Your task to perform on an android device: What's the weather like in Delhi? Image 0: 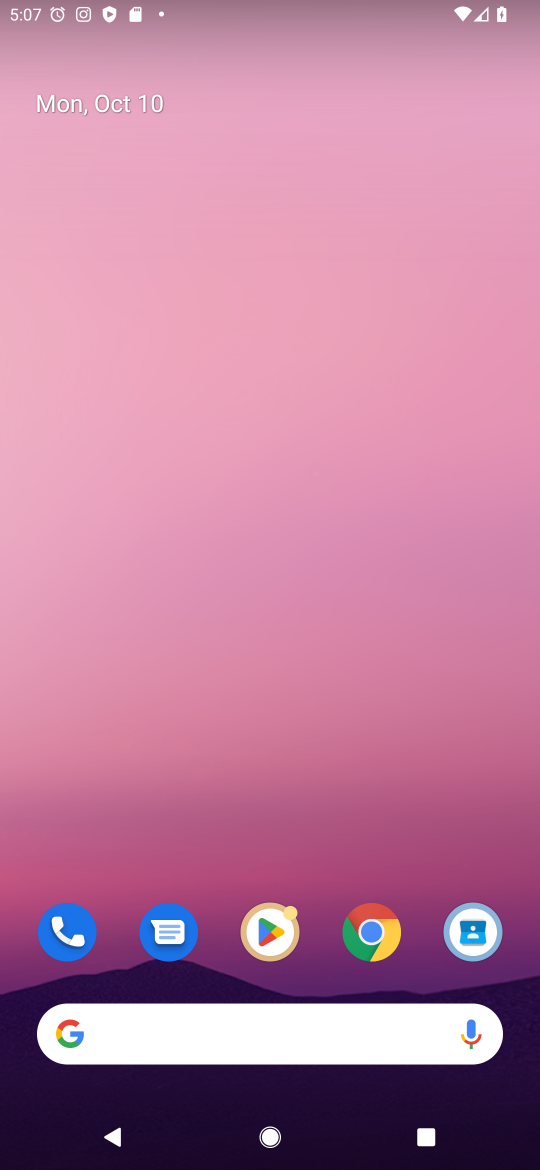
Step 0: press home button
Your task to perform on an android device: What's the weather like in Delhi? Image 1: 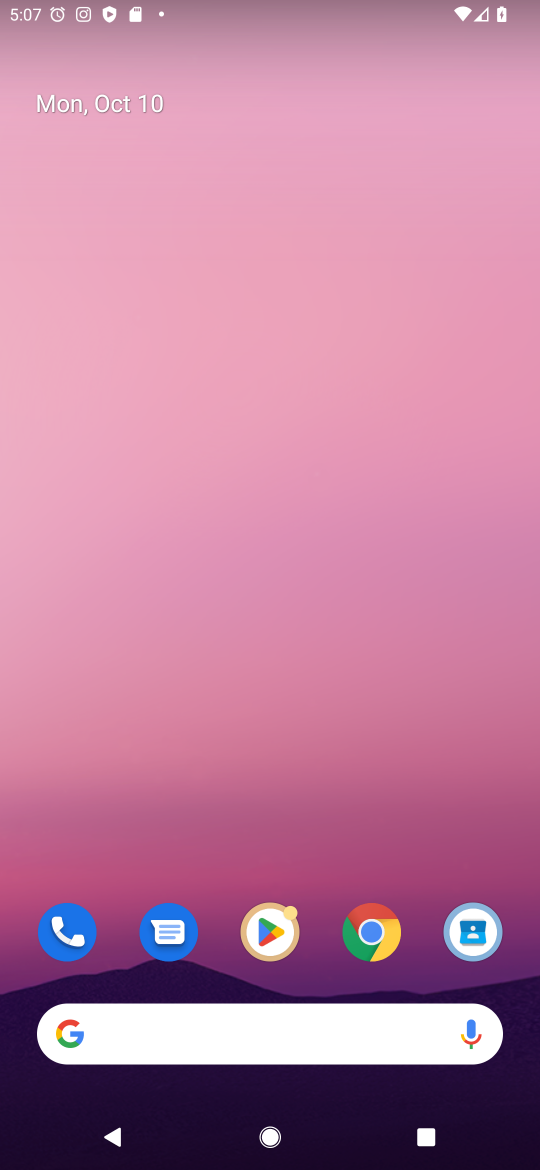
Step 1: click (286, 1037)
Your task to perform on an android device: What's the weather like in Delhi? Image 2: 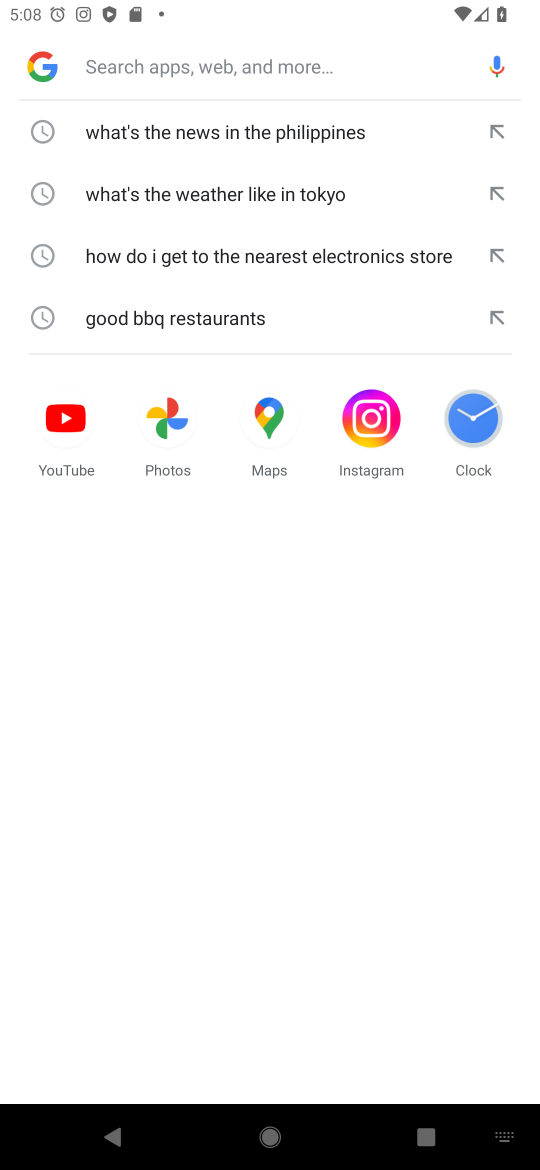
Step 2: press enter
Your task to perform on an android device: What's the weather like in Delhi? Image 3: 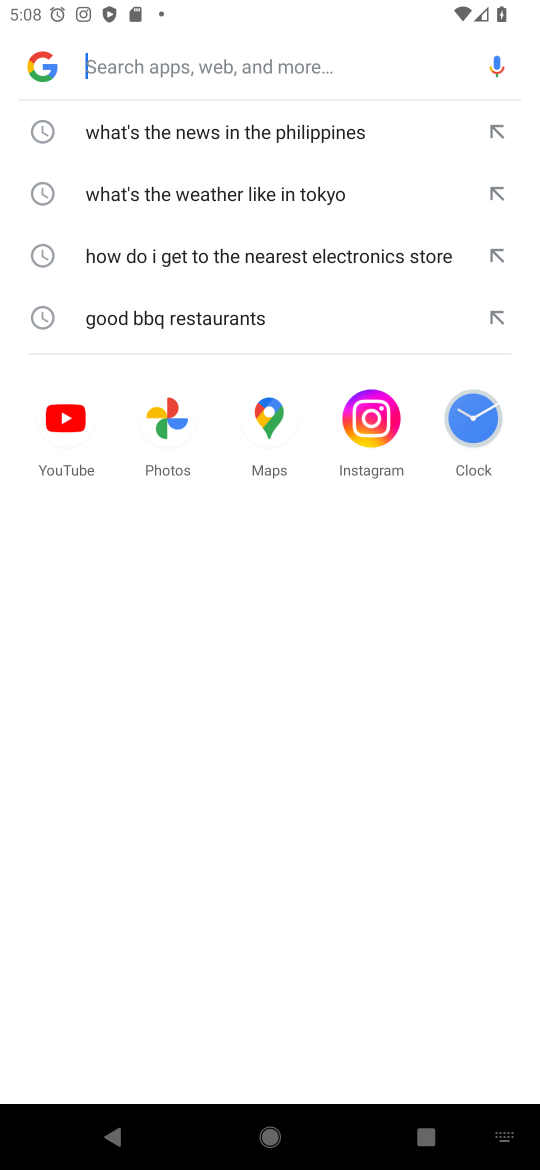
Step 3: type "What's the weather like in Delhi?"
Your task to perform on an android device: What's the weather like in Delhi? Image 4: 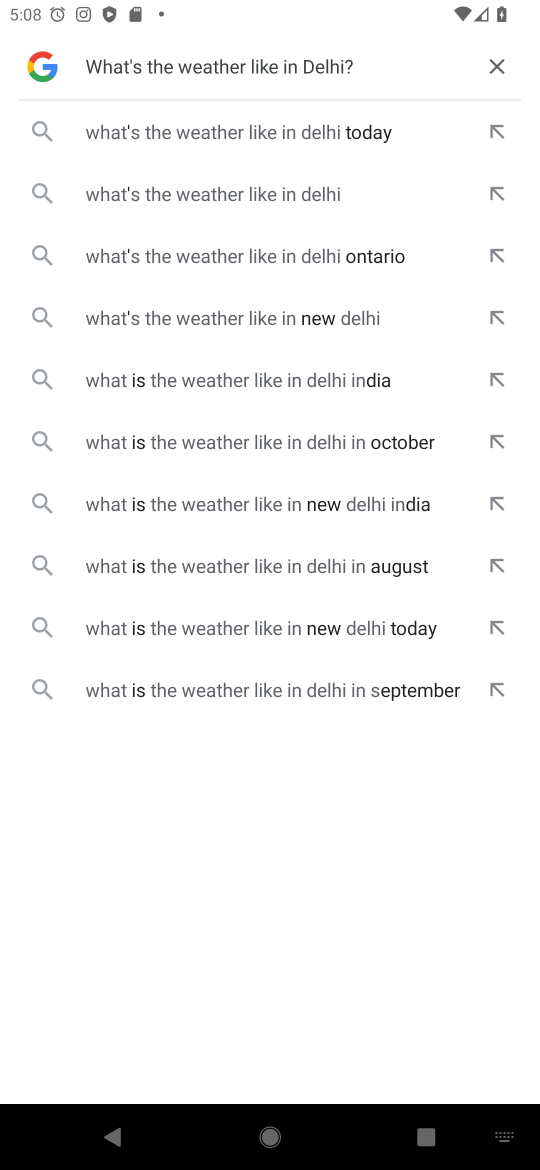
Step 4: press enter
Your task to perform on an android device: What's the weather like in Delhi? Image 5: 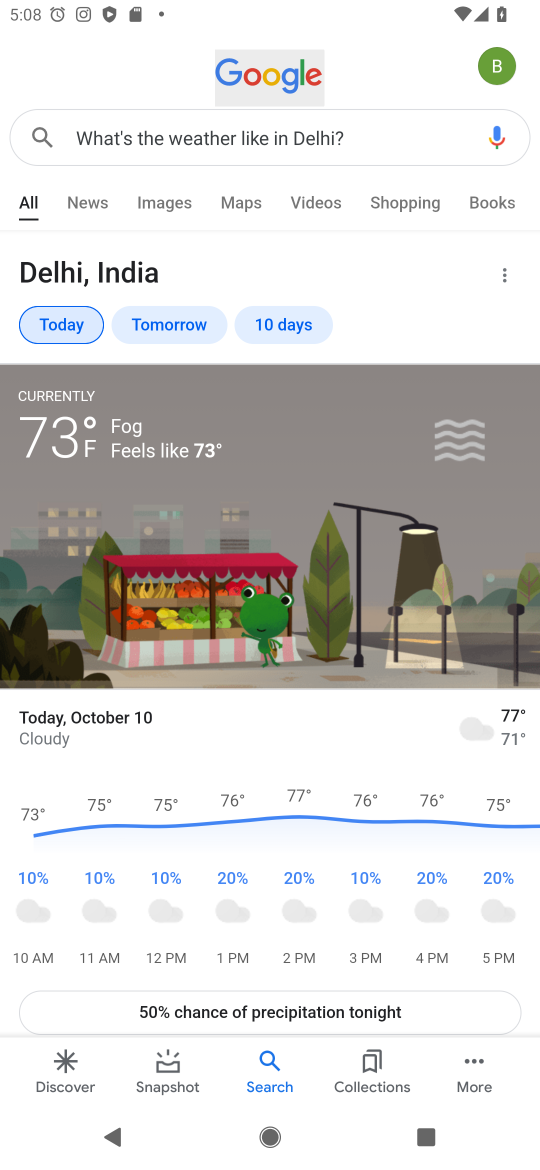
Step 5: task complete